Your task to perform on an android device: add a contact Image 0: 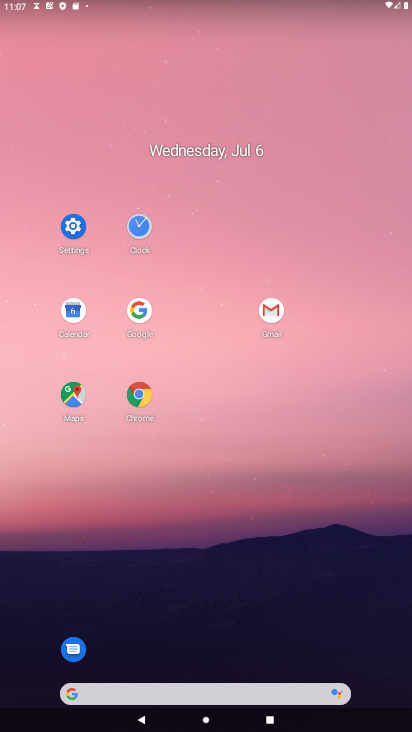
Step 0: drag from (288, 629) to (313, 185)
Your task to perform on an android device: add a contact Image 1: 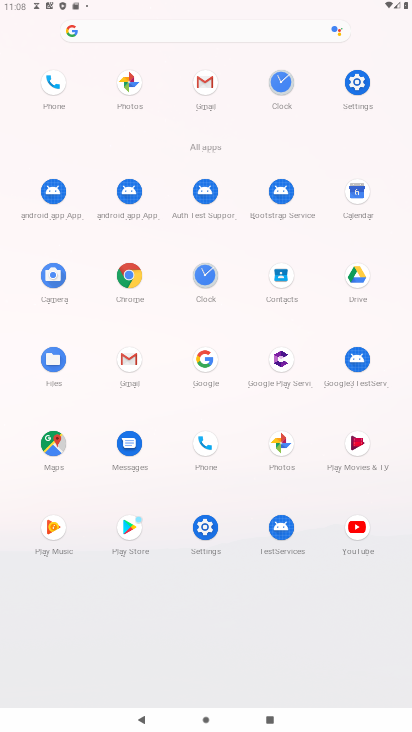
Step 1: click (278, 269)
Your task to perform on an android device: add a contact Image 2: 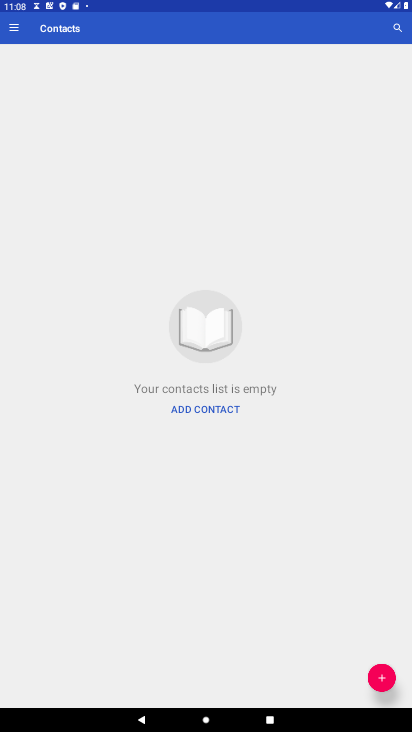
Step 2: click (386, 678)
Your task to perform on an android device: add a contact Image 3: 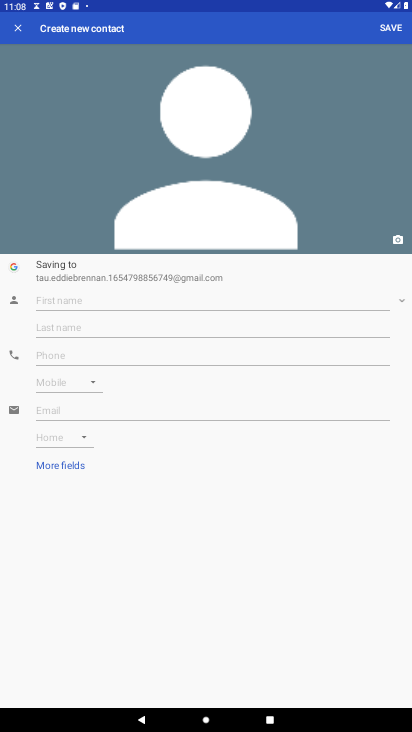
Step 3: click (97, 297)
Your task to perform on an android device: add a contact Image 4: 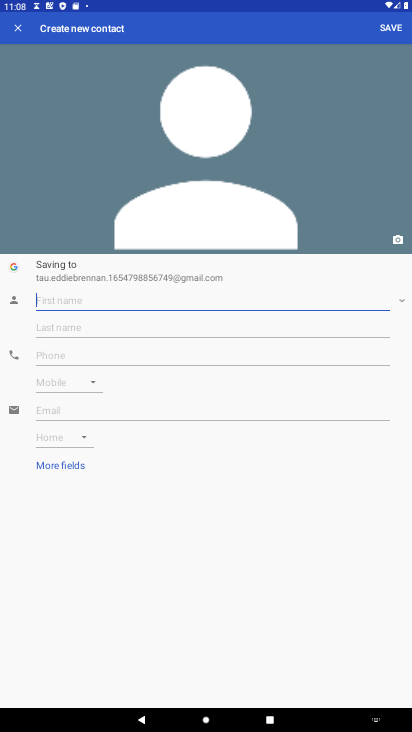
Step 4: type "kite"
Your task to perform on an android device: add a contact Image 5: 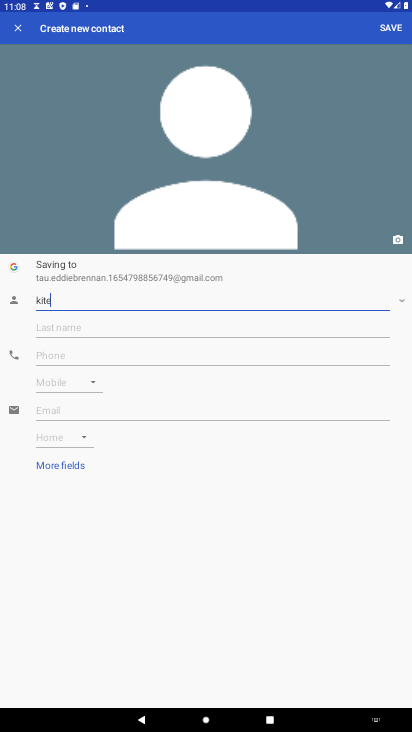
Step 5: click (64, 359)
Your task to perform on an android device: add a contact Image 6: 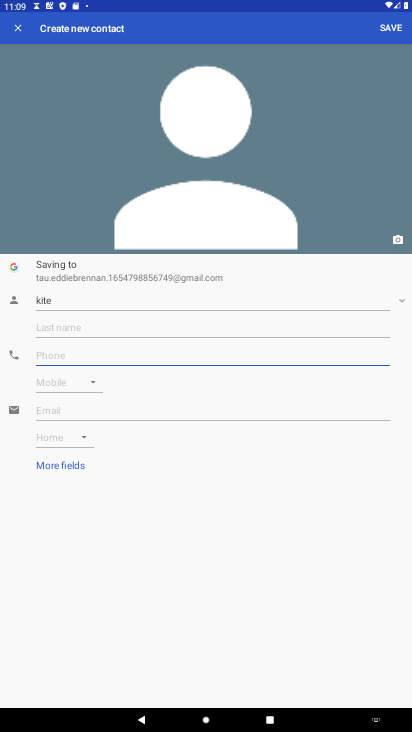
Step 6: type "3322123434"
Your task to perform on an android device: add a contact Image 7: 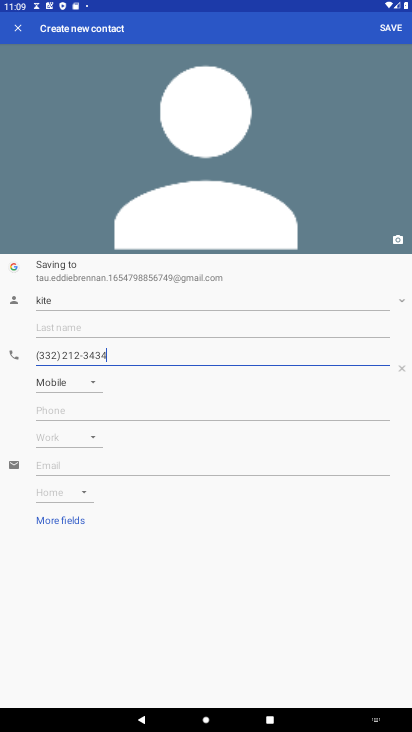
Step 7: click (400, 25)
Your task to perform on an android device: add a contact Image 8: 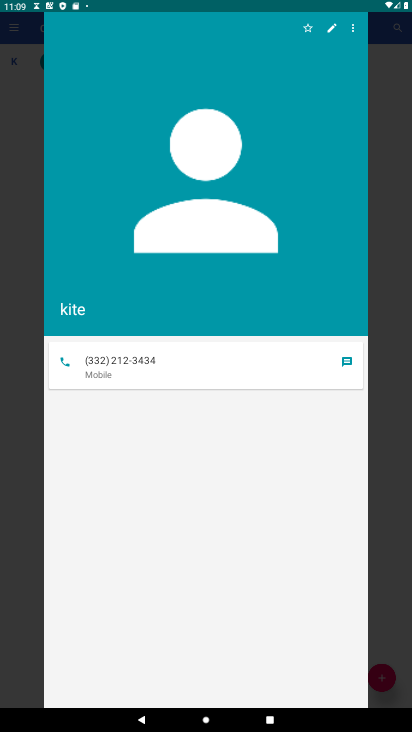
Step 8: task complete